Your task to perform on an android device: Check the weather Image 0: 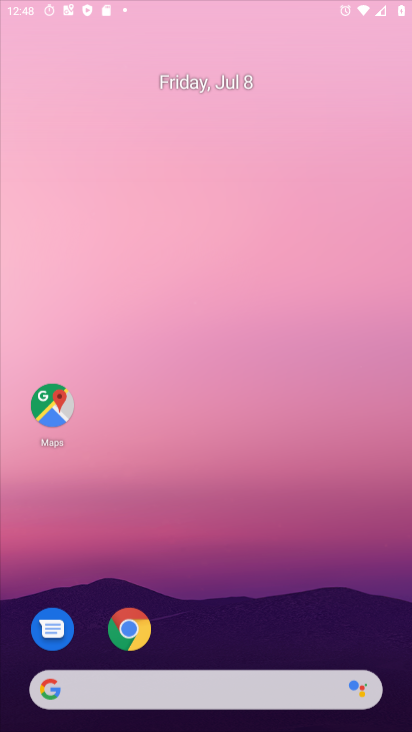
Step 0: click (165, 625)
Your task to perform on an android device: Check the weather Image 1: 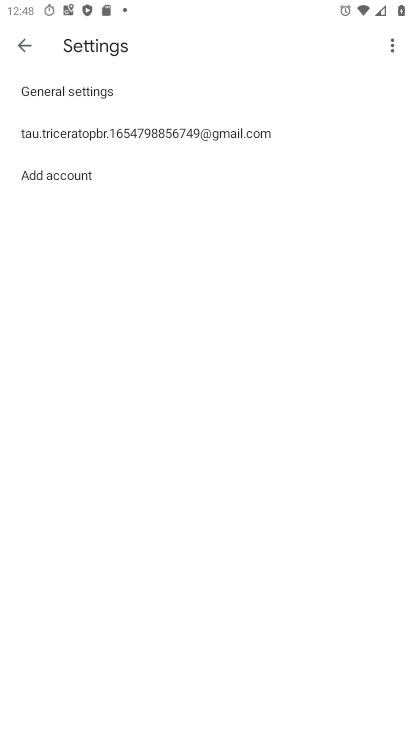
Step 1: press home button
Your task to perform on an android device: Check the weather Image 2: 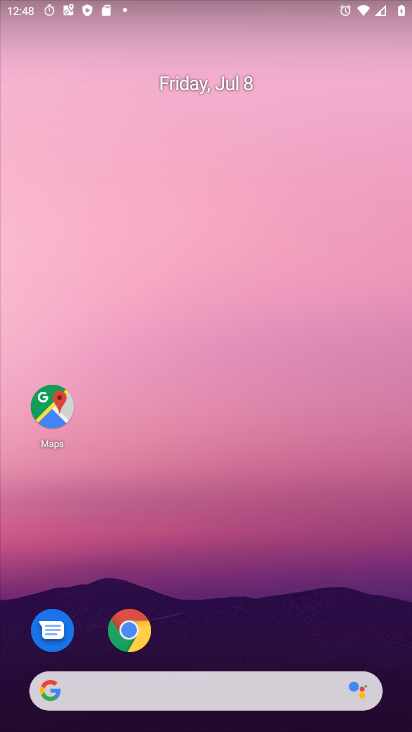
Step 2: drag from (198, 624) to (196, 135)
Your task to perform on an android device: Check the weather Image 3: 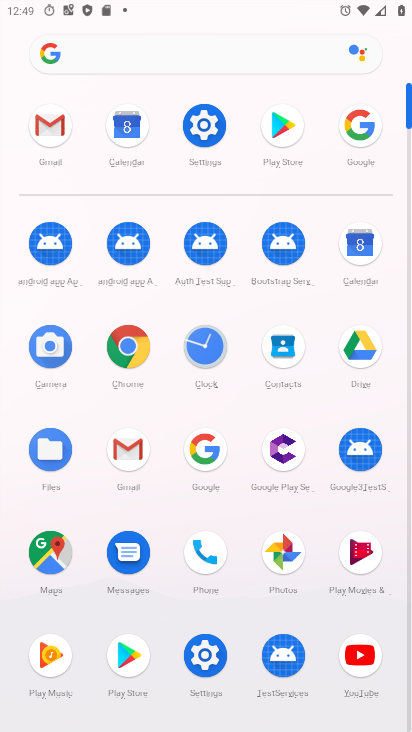
Step 3: click (201, 449)
Your task to perform on an android device: Check the weather Image 4: 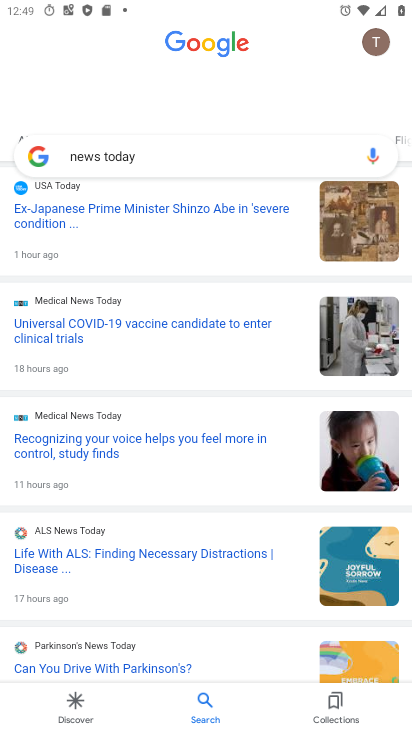
Step 4: click (147, 152)
Your task to perform on an android device: Check the weather Image 5: 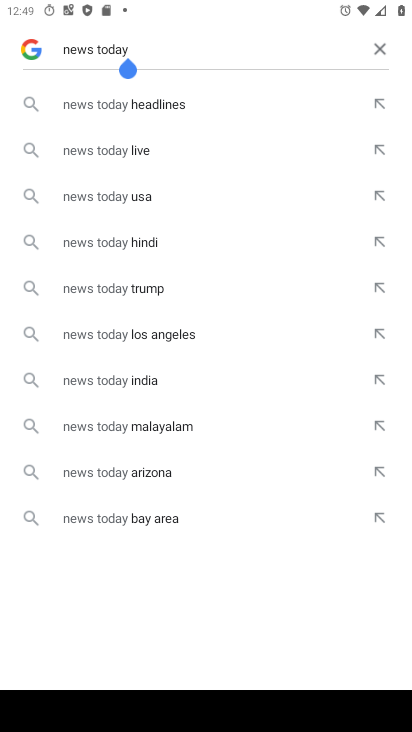
Step 5: click (372, 48)
Your task to perform on an android device: Check the weather Image 6: 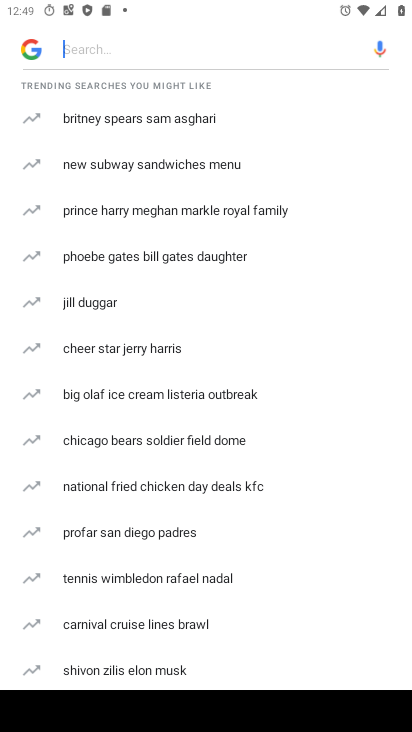
Step 6: type "weather"
Your task to perform on an android device: Check the weather Image 7: 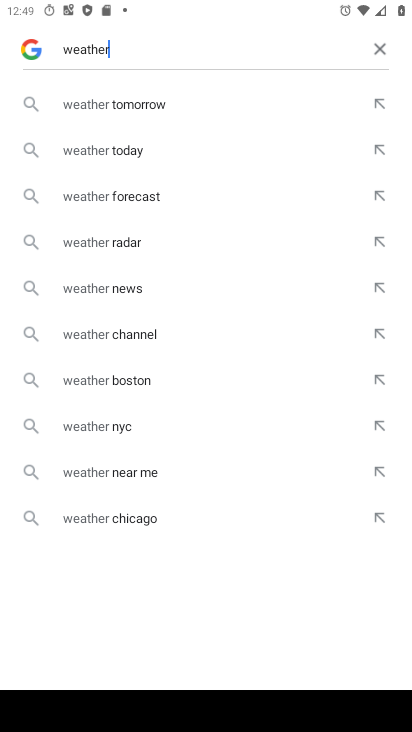
Step 7: click (137, 148)
Your task to perform on an android device: Check the weather Image 8: 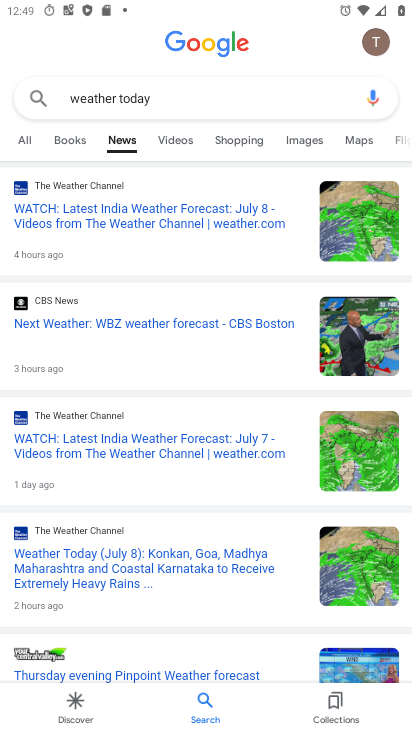
Step 8: click (37, 139)
Your task to perform on an android device: Check the weather Image 9: 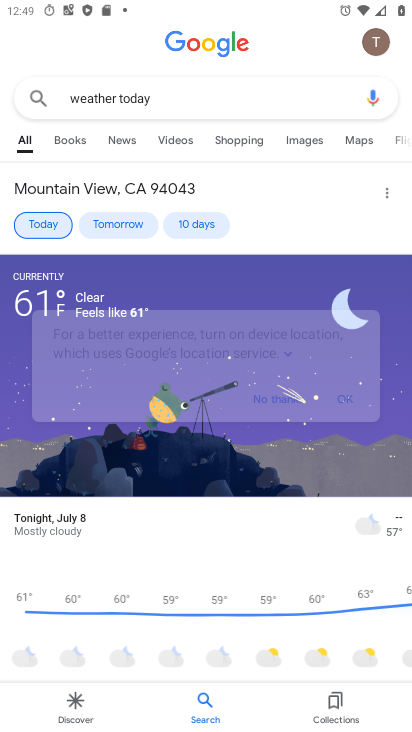
Step 9: task complete